Your task to perform on an android device: Open the map Image 0: 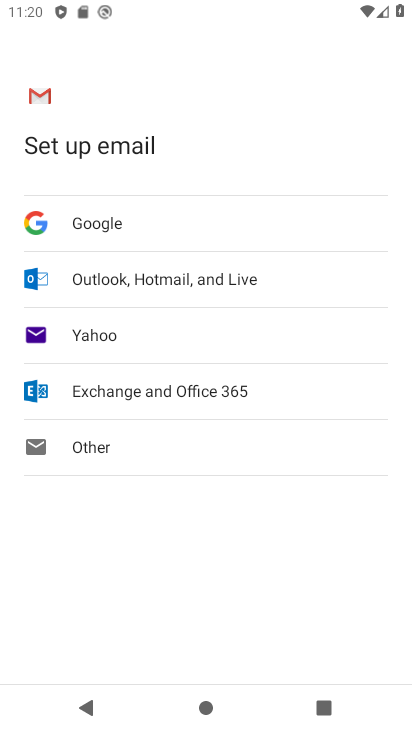
Step 0: press back button
Your task to perform on an android device: Open the map Image 1: 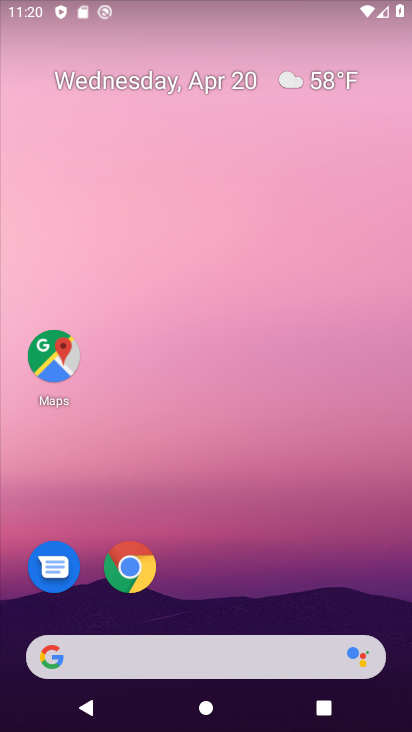
Step 1: drag from (376, 570) to (264, 151)
Your task to perform on an android device: Open the map Image 2: 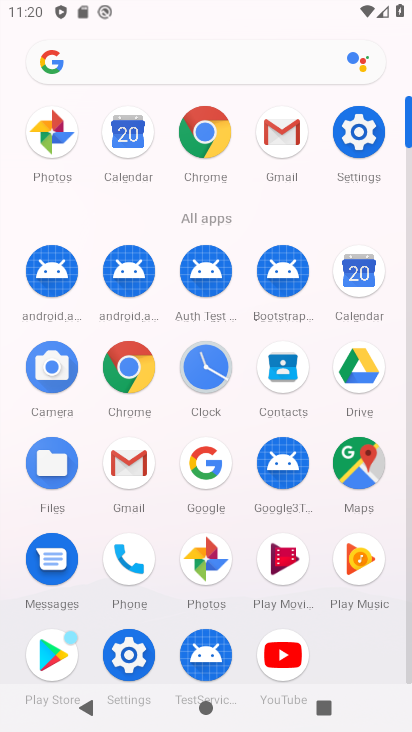
Step 2: click (348, 469)
Your task to perform on an android device: Open the map Image 3: 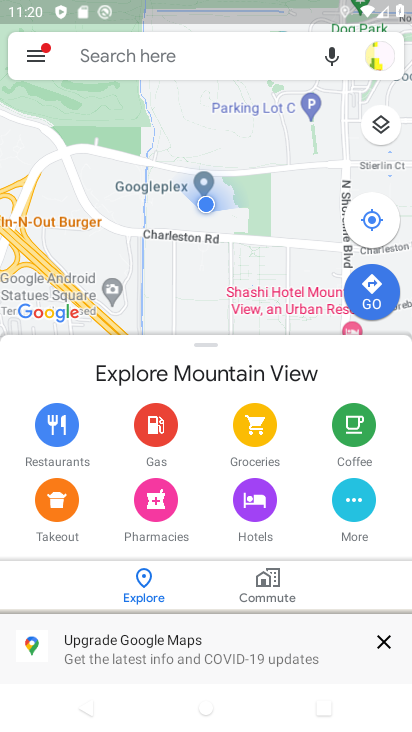
Step 3: task complete